Your task to perform on an android device: Open notification settings Image 0: 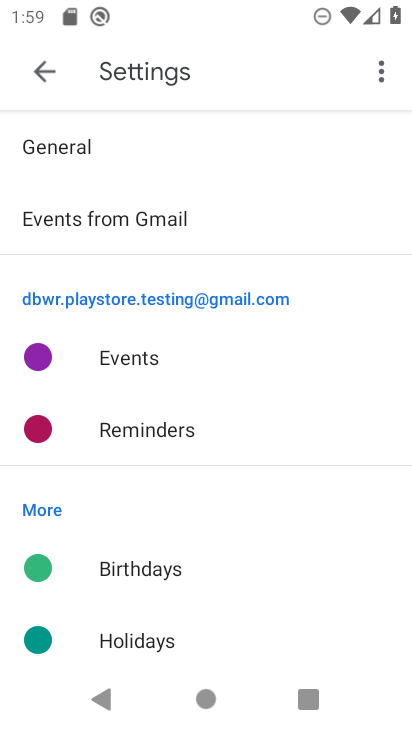
Step 0: press home button
Your task to perform on an android device: Open notification settings Image 1: 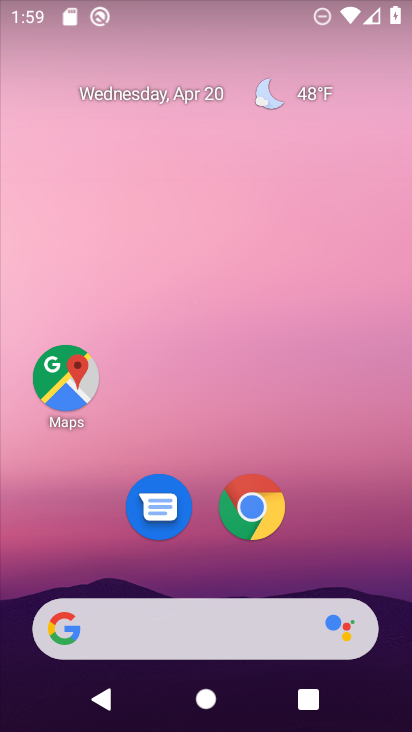
Step 1: drag from (206, 723) to (190, 93)
Your task to perform on an android device: Open notification settings Image 2: 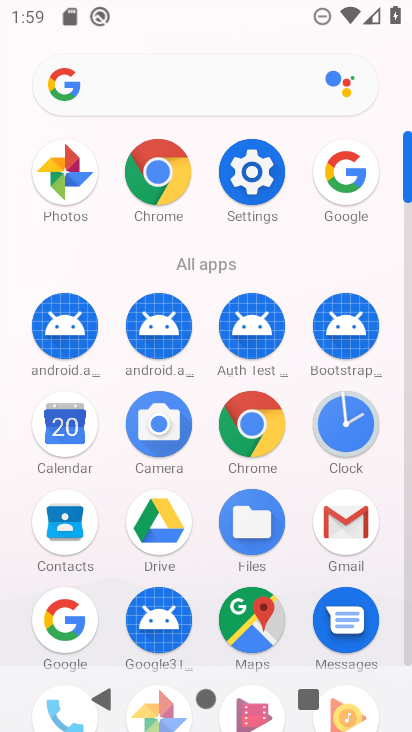
Step 2: click (258, 178)
Your task to perform on an android device: Open notification settings Image 3: 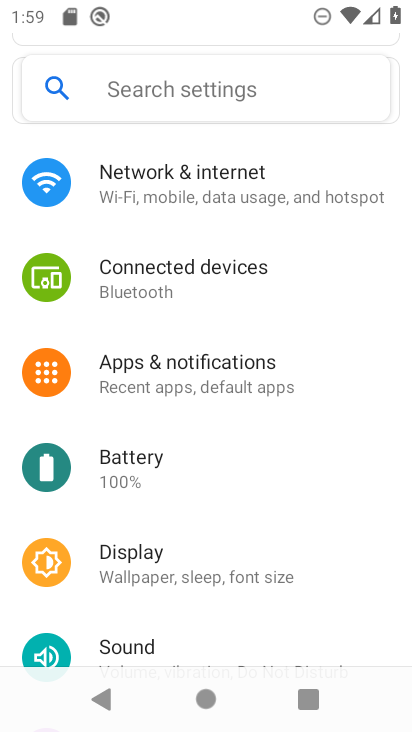
Step 3: click (166, 377)
Your task to perform on an android device: Open notification settings Image 4: 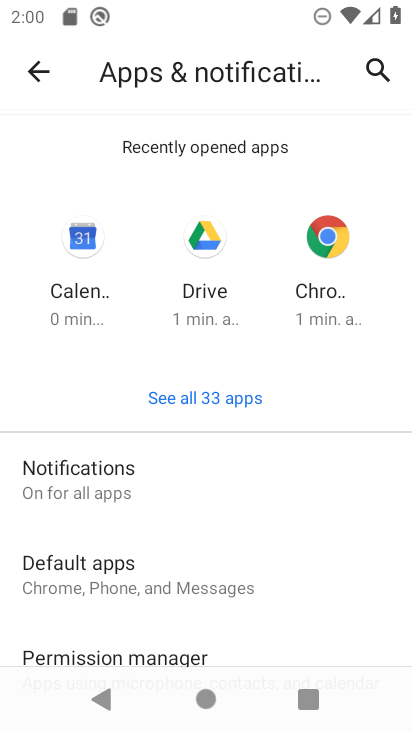
Step 4: click (73, 490)
Your task to perform on an android device: Open notification settings Image 5: 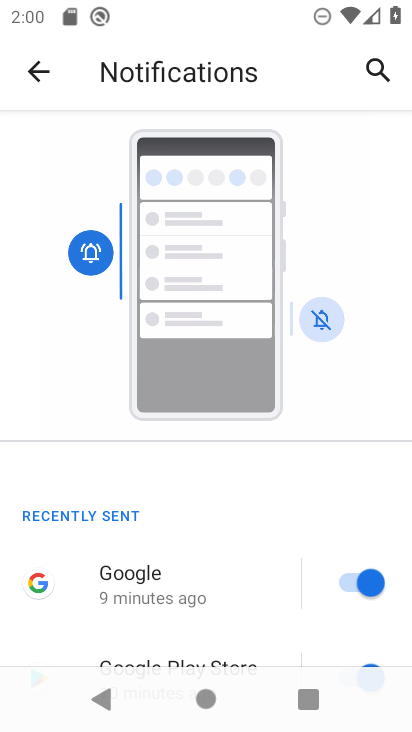
Step 5: task complete